Your task to perform on an android device: toggle pop-ups in chrome Image 0: 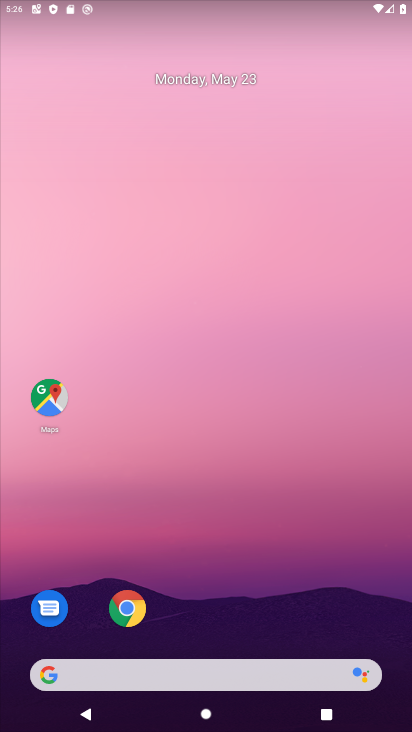
Step 0: drag from (208, 621) to (234, 184)
Your task to perform on an android device: toggle pop-ups in chrome Image 1: 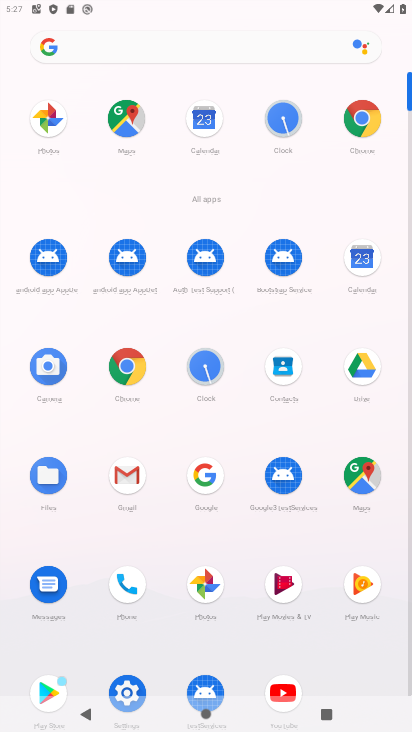
Step 1: click (129, 374)
Your task to perform on an android device: toggle pop-ups in chrome Image 2: 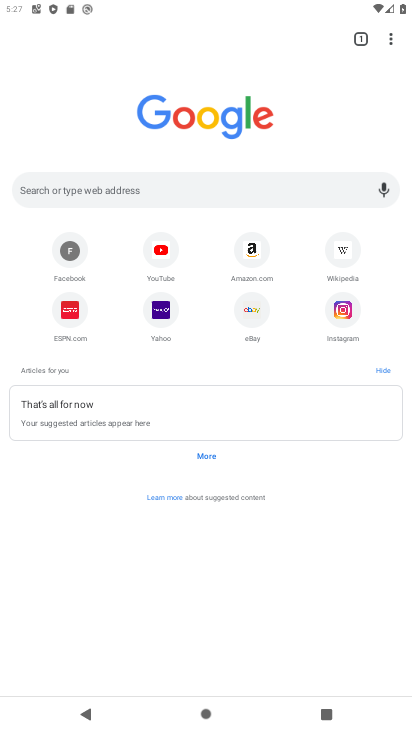
Step 2: click (396, 29)
Your task to perform on an android device: toggle pop-ups in chrome Image 3: 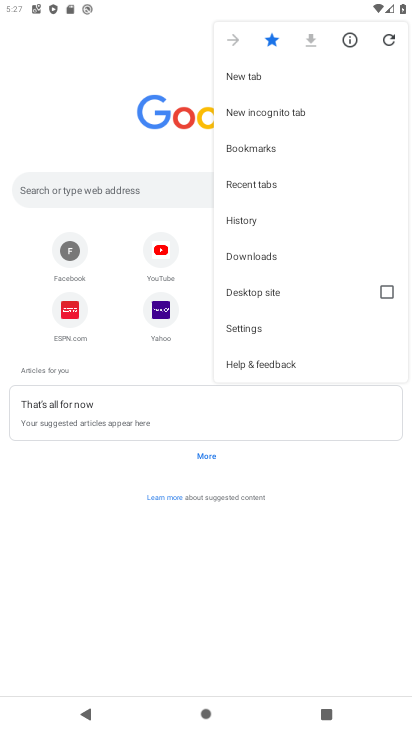
Step 3: click (235, 325)
Your task to perform on an android device: toggle pop-ups in chrome Image 4: 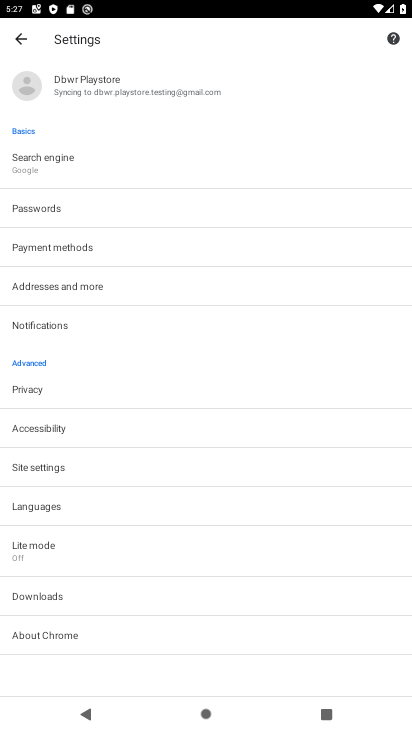
Step 4: click (52, 466)
Your task to perform on an android device: toggle pop-ups in chrome Image 5: 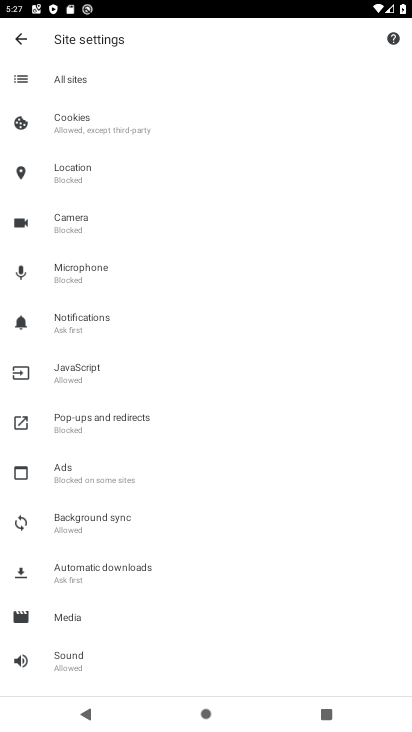
Step 5: click (127, 421)
Your task to perform on an android device: toggle pop-ups in chrome Image 6: 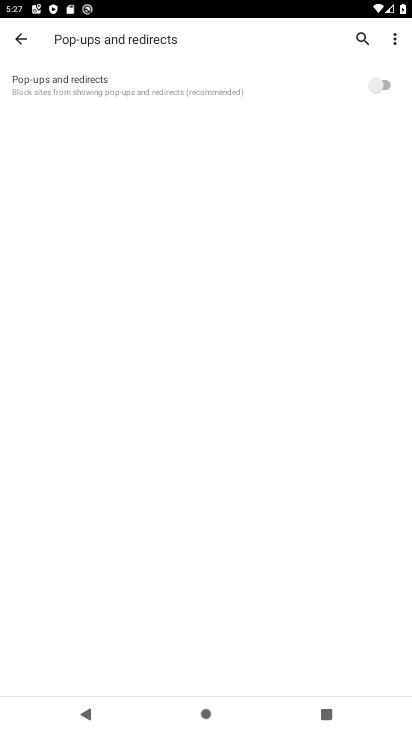
Step 6: click (381, 78)
Your task to perform on an android device: toggle pop-ups in chrome Image 7: 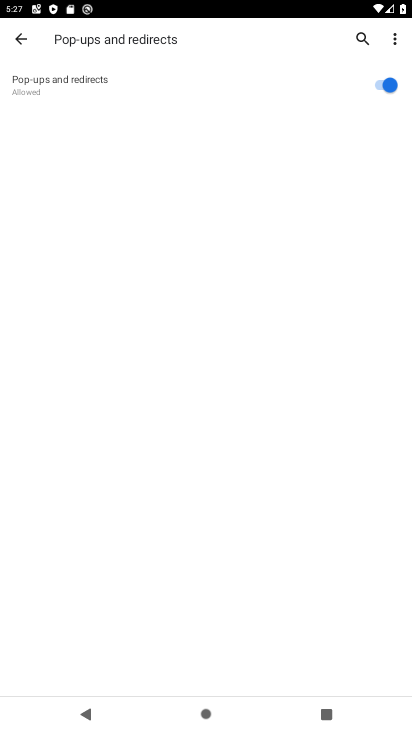
Step 7: task complete